Your task to perform on an android device: change the upload size in google photos Image 0: 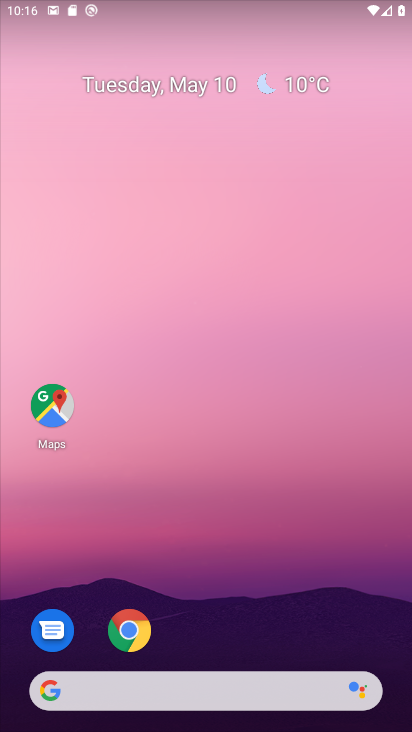
Step 0: drag from (220, 641) to (240, 69)
Your task to perform on an android device: change the upload size in google photos Image 1: 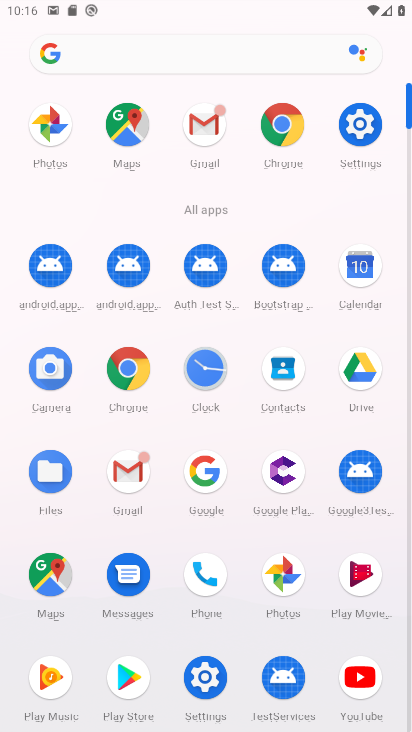
Step 1: click (283, 561)
Your task to perform on an android device: change the upload size in google photos Image 2: 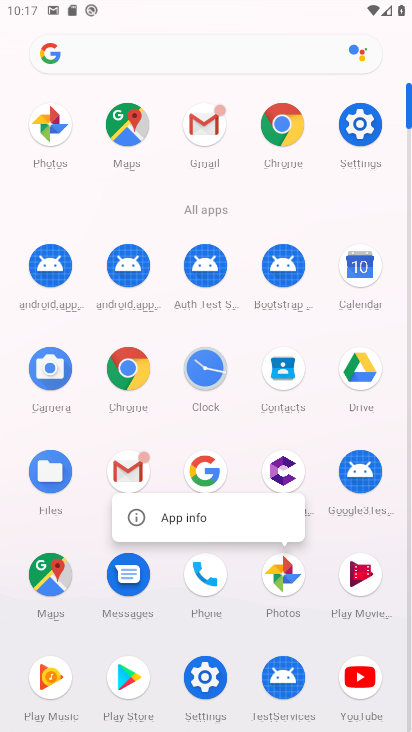
Step 2: click (288, 574)
Your task to perform on an android device: change the upload size in google photos Image 3: 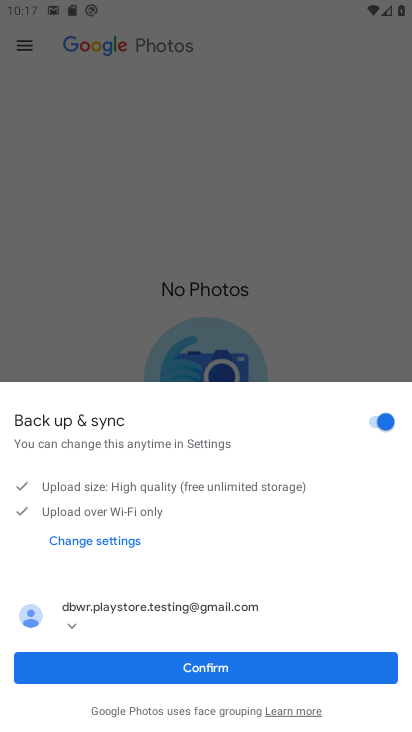
Step 3: click (193, 665)
Your task to perform on an android device: change the upload size in google photos Image 4: 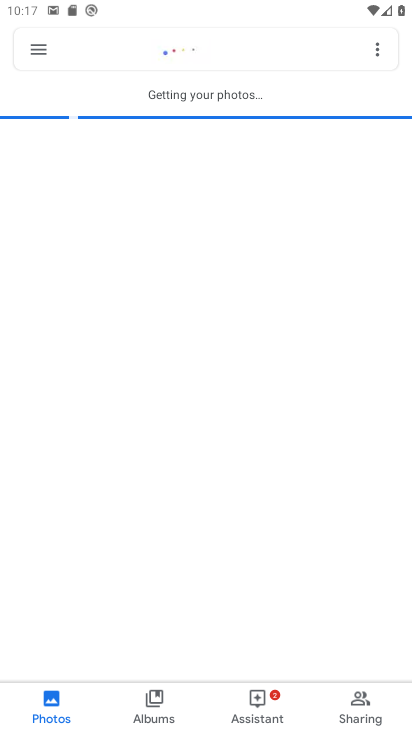
Step 4: click (37, 37)
Your task to perform on an android device: change the upload size in google photos Image 5: 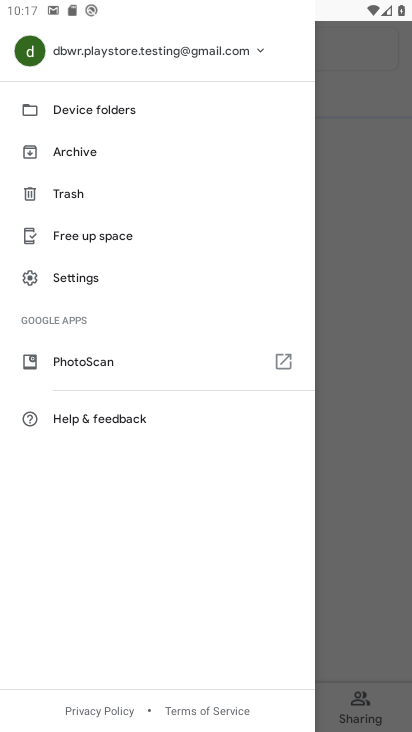
Step 5: click (99, 278)
Your task to perform on an android device: change the upload size in google photos Image 6: 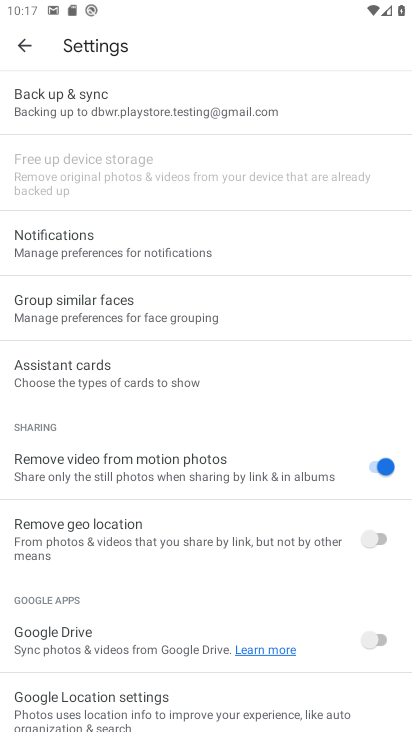
Step 6: click (102, 102)
Your task to perform on an android device: change the upload size in google photos Image 7: 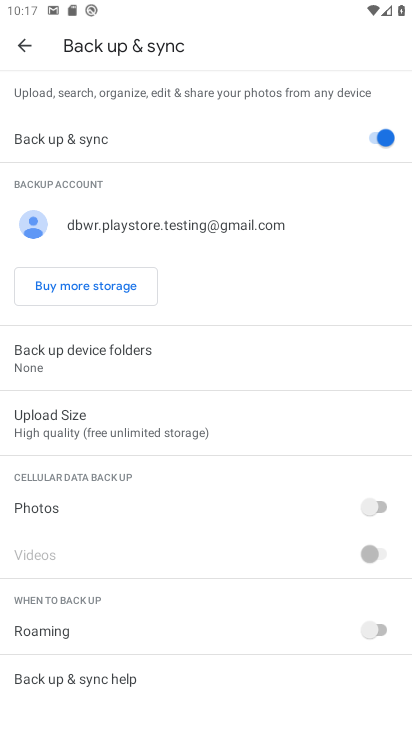
Step 7: drag from (117, 564) to (135, 208)
Your task to perform on an android device: change the upload size in google photos Image 8: 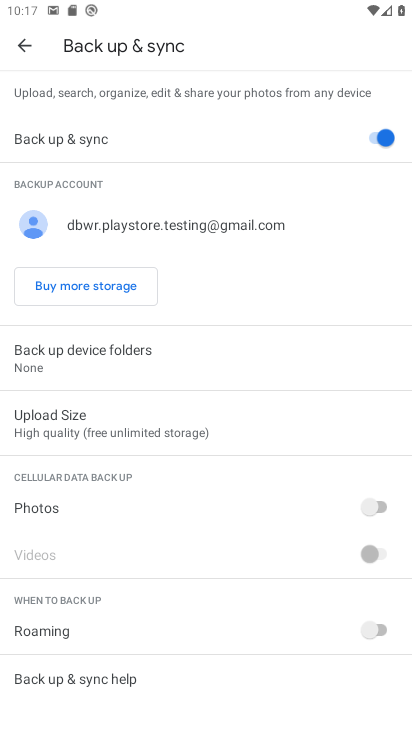
Step 8: click (93, 425)
Your task to perform on an android device: change the upload size in google photos Image 9: 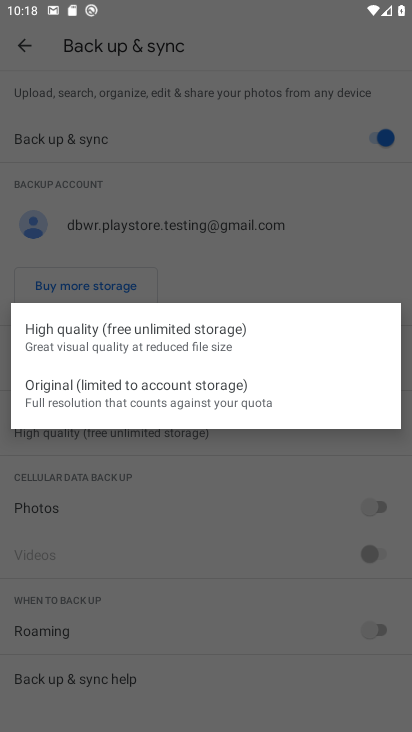
Step 9: click (123, 330)
Your task to perform on an android device: change the upload size in google photos Image 10: 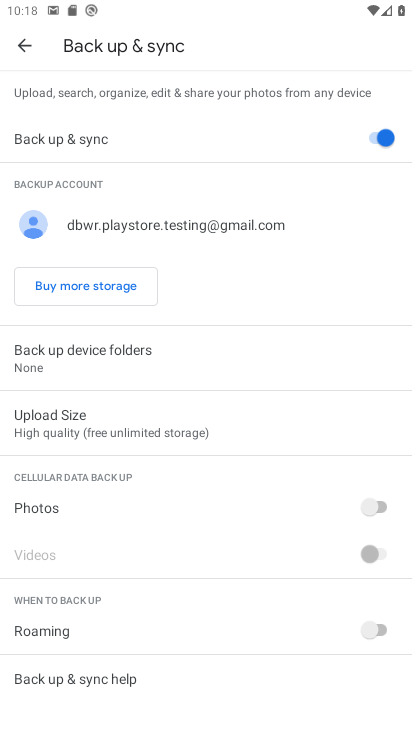
Step 10: task complete